Your task to perform on an android device: Go to sound settings Image 0: 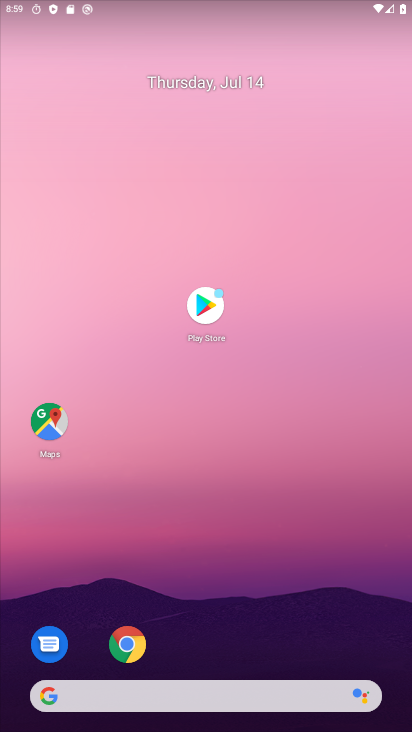
Step 0: drag from (180, 631) to (180, 208)
Your task to perform on an android device: Go to sound settings Image 1: 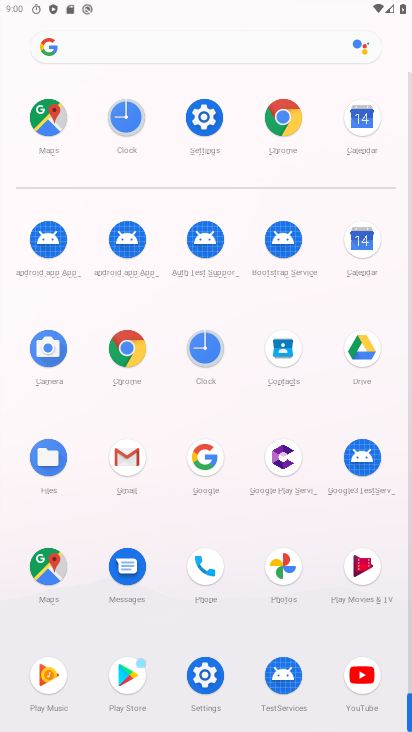
Step 1: click (216, 666)
Your task to perform on an android device: Go to sound settings Image 2: 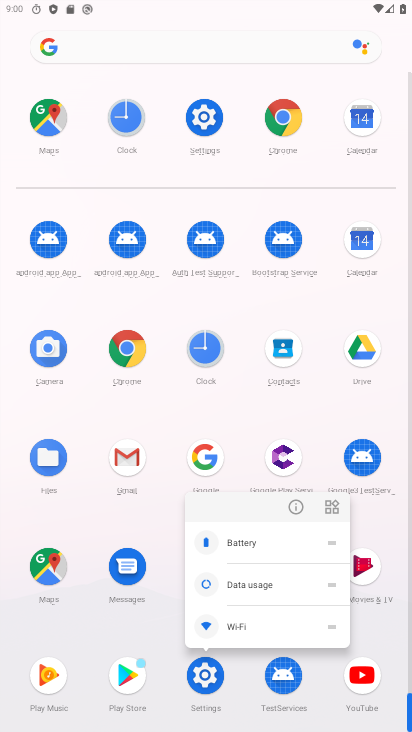
Step 2: click (292, 510)
Your task to perform on an android device: Go to sound settings Image 3: 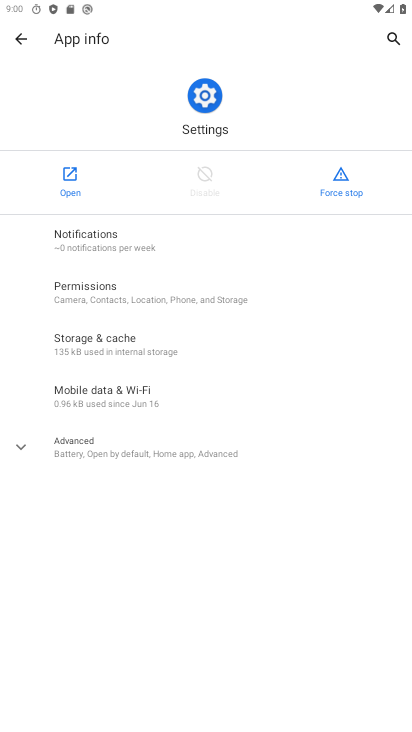
Step 3: click (80, 184)
Your task to perform on an android device: Go to sound settings Image 4: 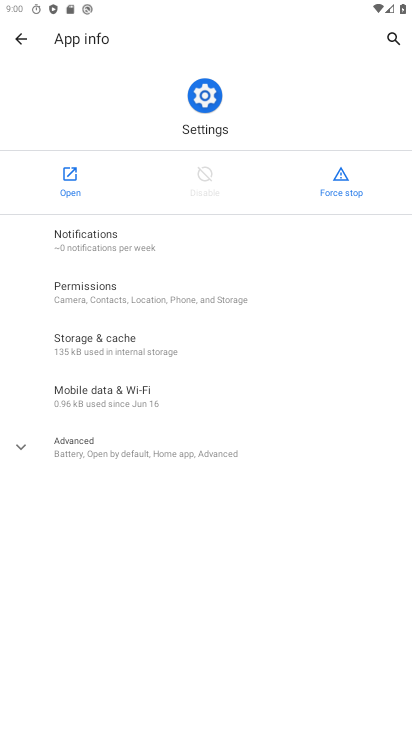
Step 4: click (81, 183)
Your task to perform on an android device: Go to sound settings Image 5: 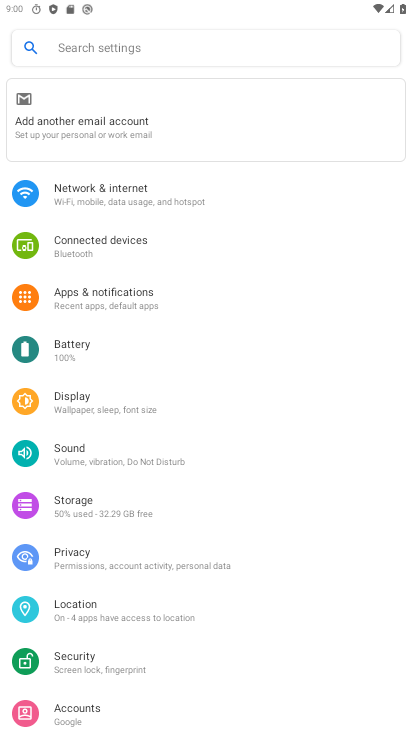
Step 5: click (75, 454)
Your task to perform on an android device: Go to sound settings Image 6: 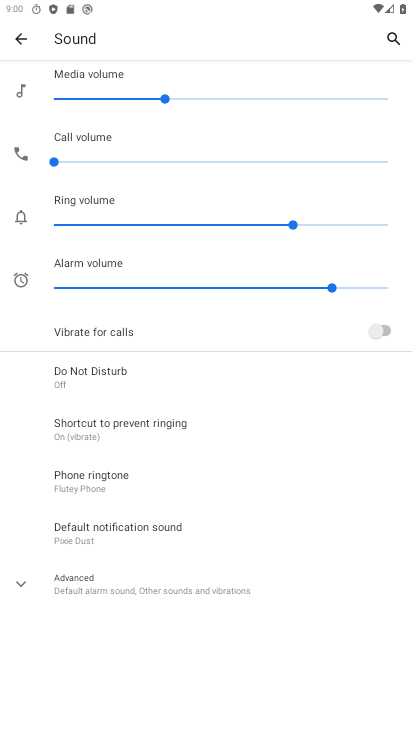
Step 6: click (91, 445)
Your task to perform on an android device: Go to sound settings Image 7: 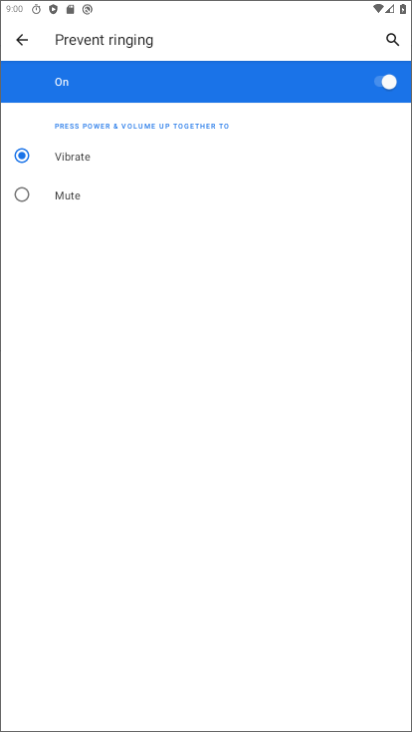
Step 7: click (100, 443)
Your task to perform on an android device: Go to sound settings Image 8: 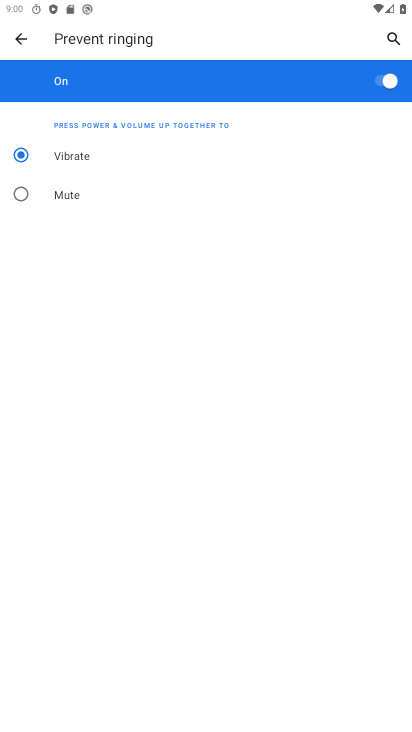
Step 8: drag from (100, 443) to (300, 159)
Your task to perform on an android device: Go to sound settings Image 9: 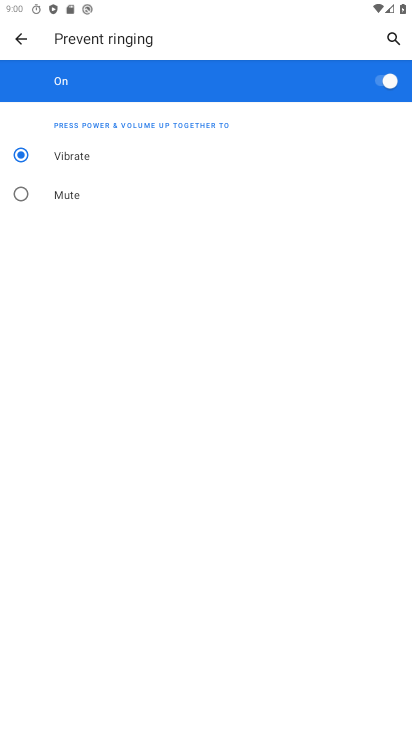
Step 9: click (21, 36)
Your task to perform on an android device: Go to sound settings Image 10: 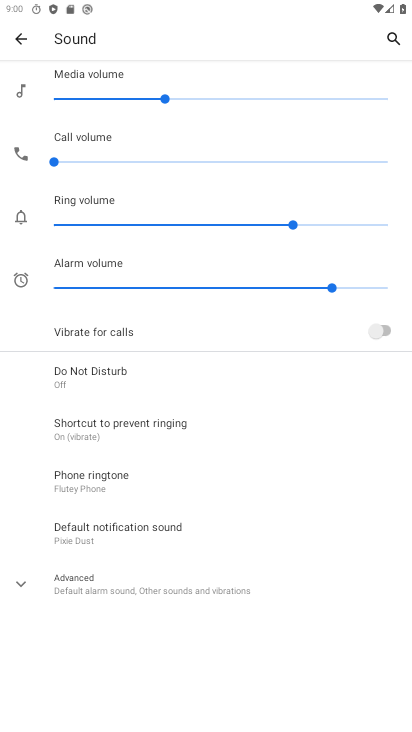
Step 10: task complete